Your task to perform on an android device: Search for "alienware area 51" on target.com, select the first entry, add it to the cart, then select checkout. Image 0: 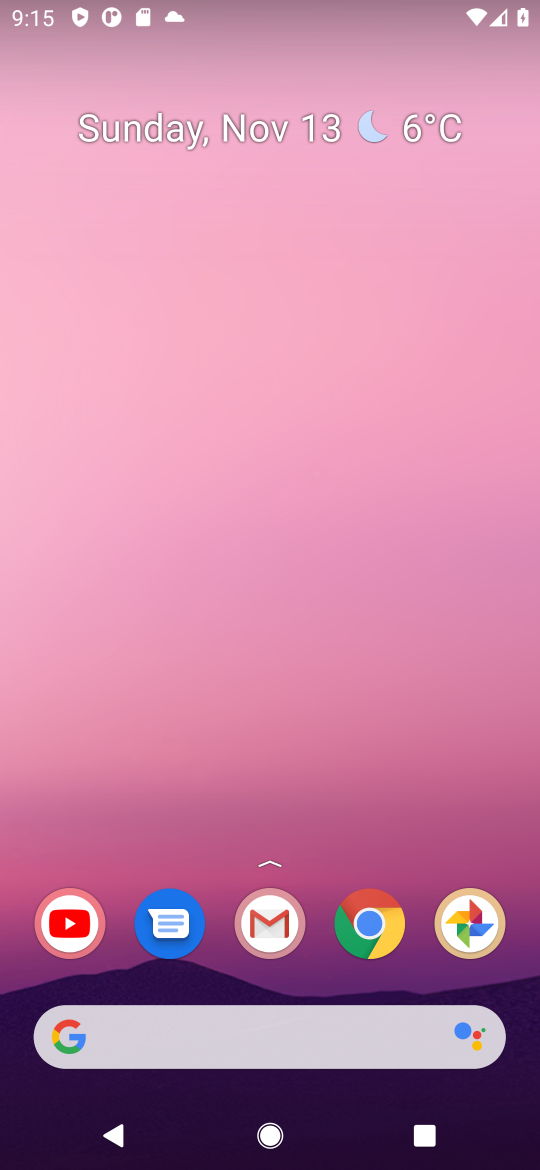
Step 0: click (383, 917)
Your task to perform on an android device: Search for "alienware area 51" on target.com, select the first entry, add it to the cart, then select checkout. Image 1: 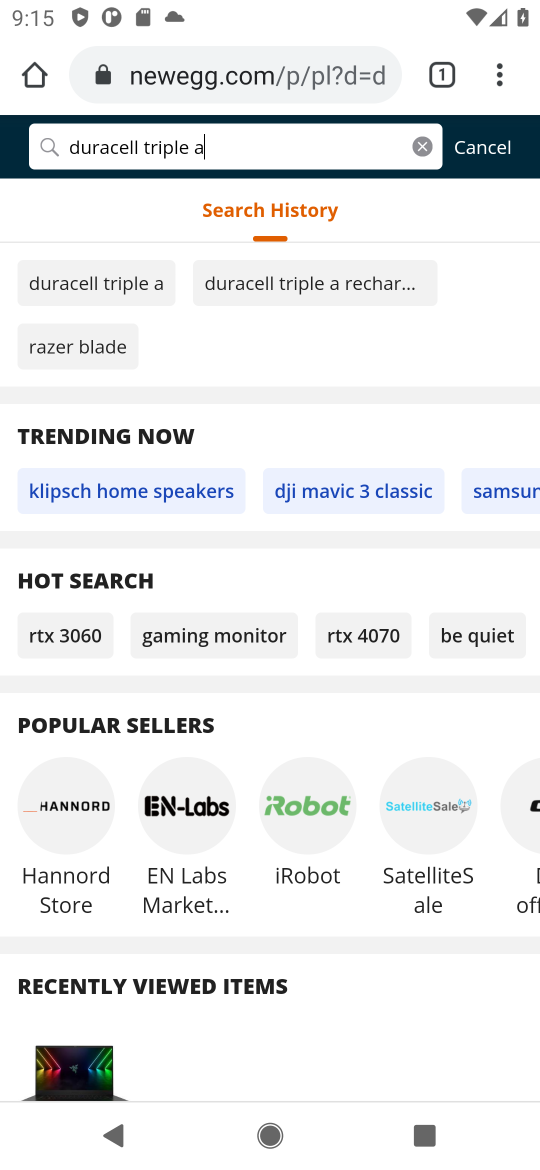
Step 1: click (350, 74)
Your task to perform on an android device: Search for "alienware area 51" on target.com, select the first entry, add it to the cart, then select checkout. Image 2: 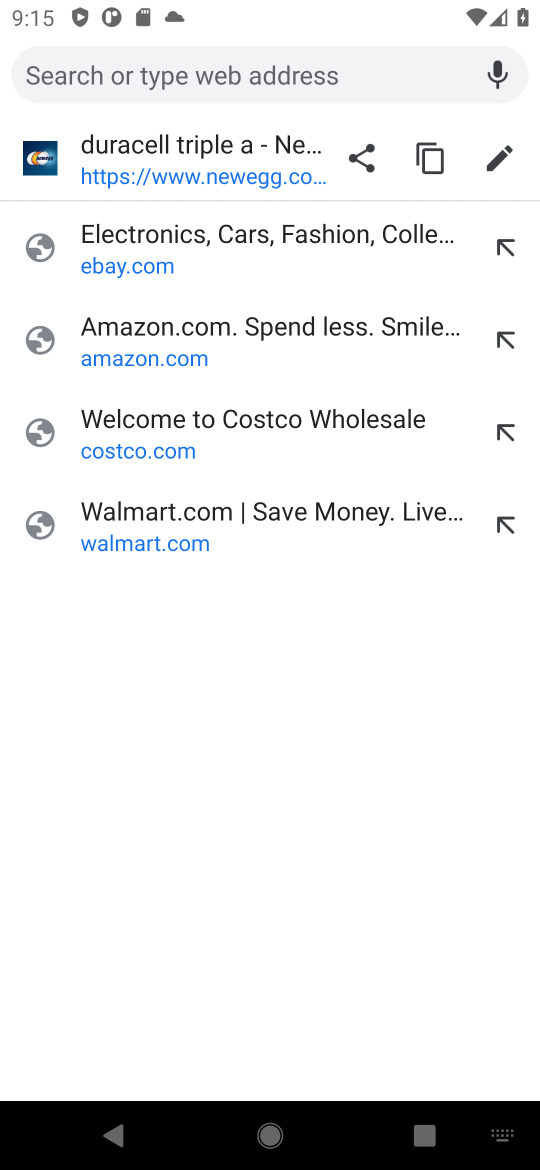
Step 2: type "target.com"
Your task to perform on an android device: Search for "alienware area 51" on target.com, select the first entry, add it to the cart, then select checkout. Image 3: 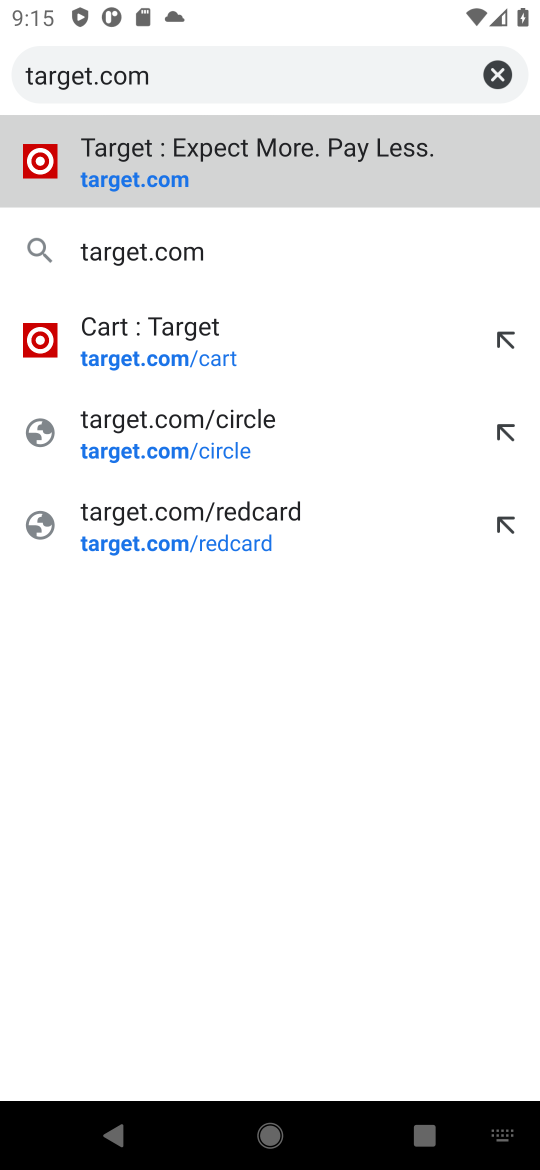
Step 3: press enter
Your task to perform on an android device: Search for "alienware area 51" on target.com, select the first entry, add it to the cart, then select checkout. Image 4: 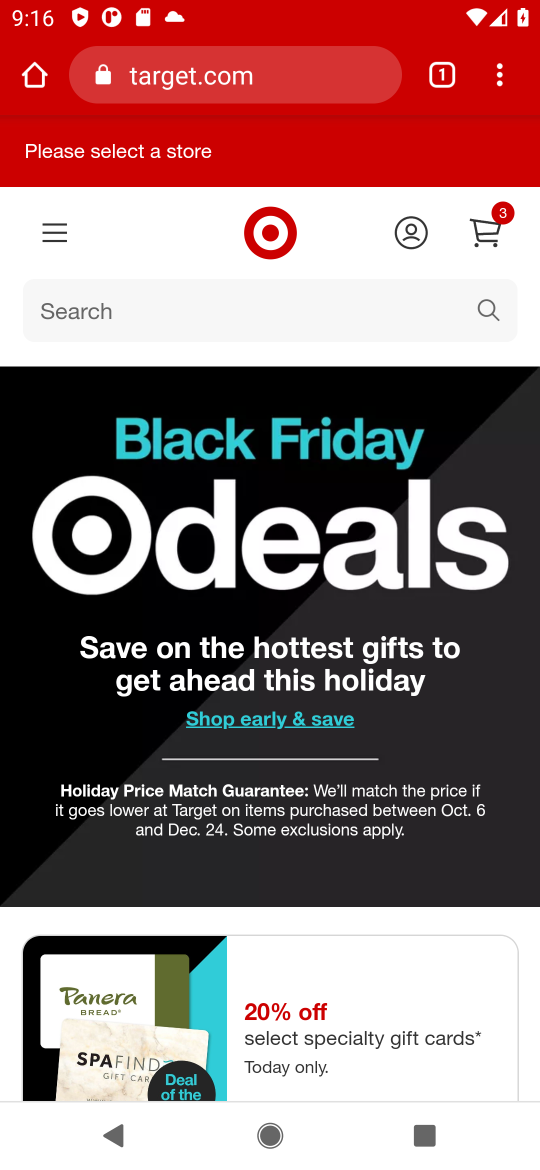
Step 4: click (485, 303)
Your task to perform on an android device: Search for "alienware area 51" on target.com, select the first entry, add it to the cart, then select checkout. Image 5: 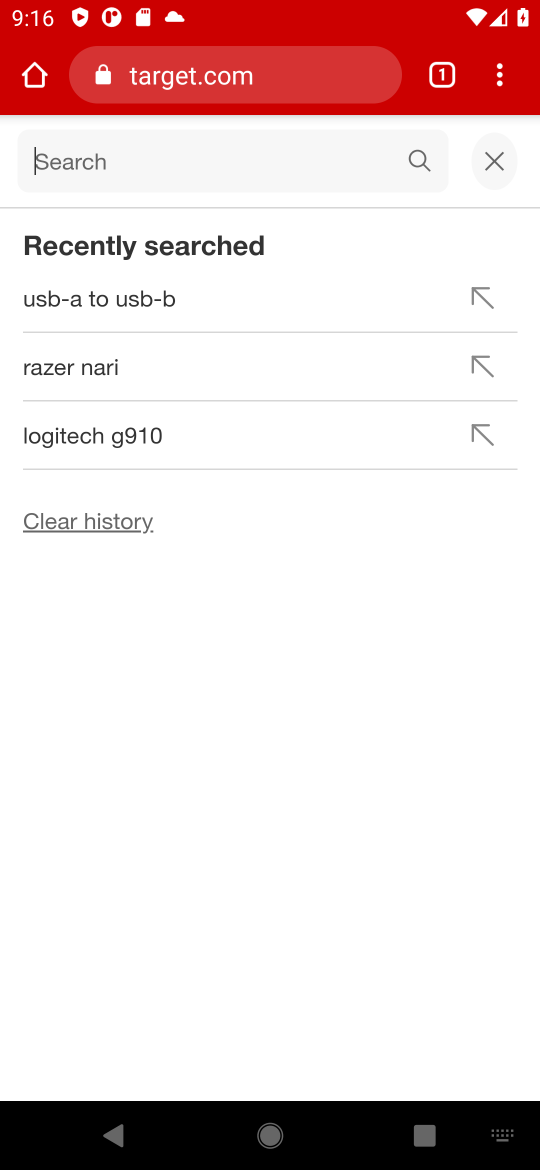
Step 5: type "alienware area 51"
Your task to perform on an android device: Search for "alienware area 51" on target.com, select the first entry, add it to the cart, then select checkout. Image 6: 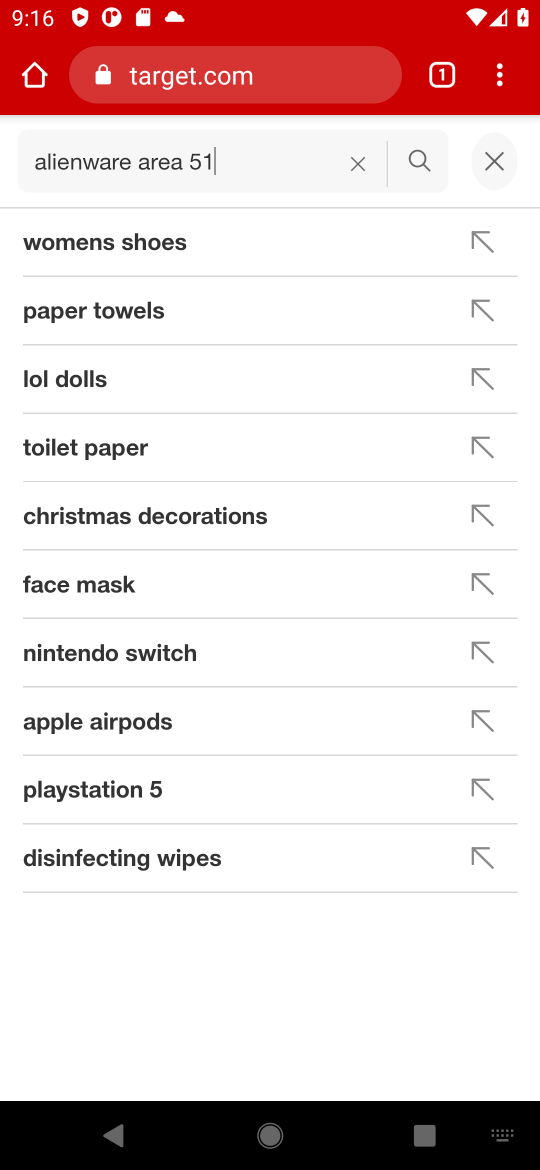
Step 6: press enter
Your task to perform on an android device: Search for "alienware area 51" on target.com, select the first entry, add it to the cart, then select checkout. Image 7: 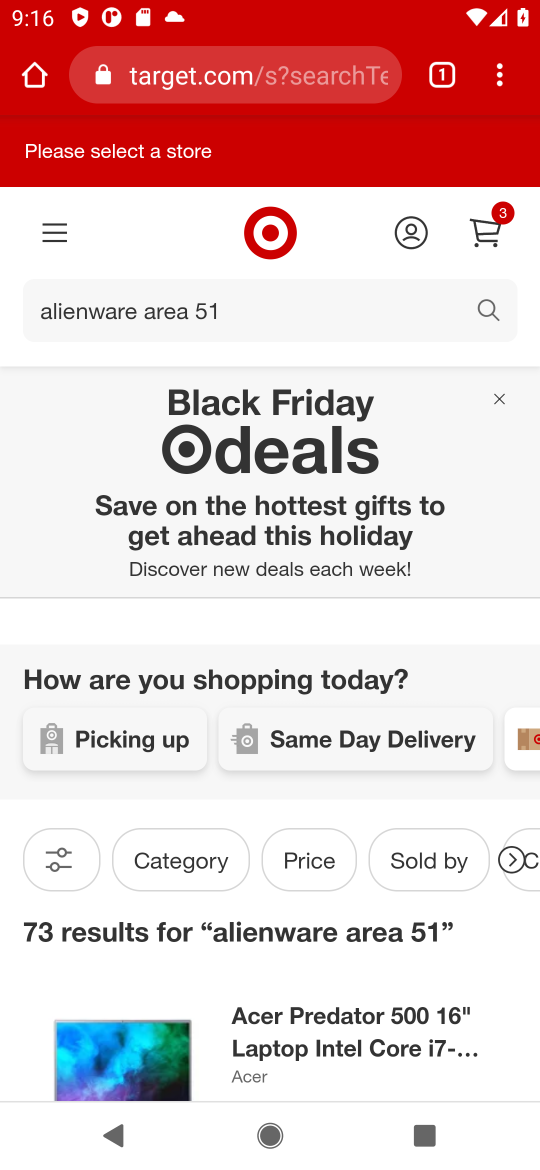
Step 7: task complete